Your task to perform on an android device: What's the weather going to be this weekend? Image 0: 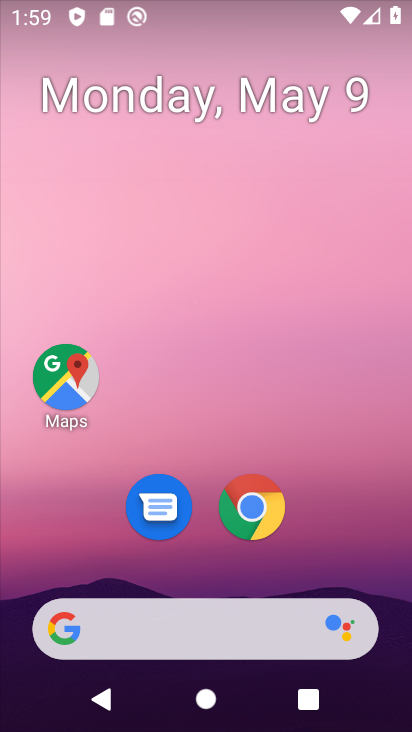
Step 0: click (214, 613)
Your task to perform on an android device: What's the weather going to be this weekend? Image 1: 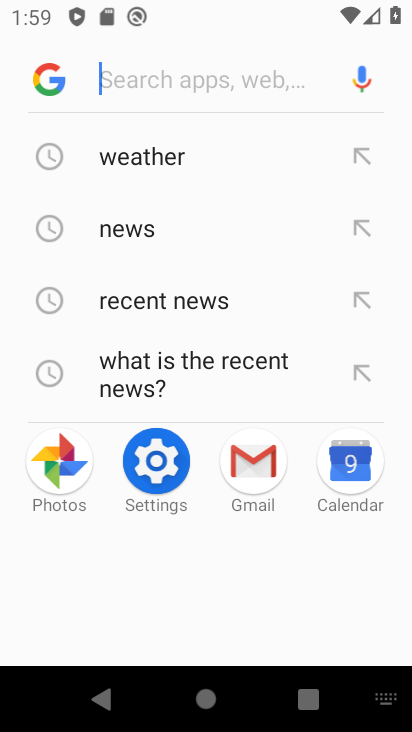
Step 1: type "What's the weather going to be this weekend?"
Your task to perform on an android device: What's the weather going to be this weekend? Image 2: 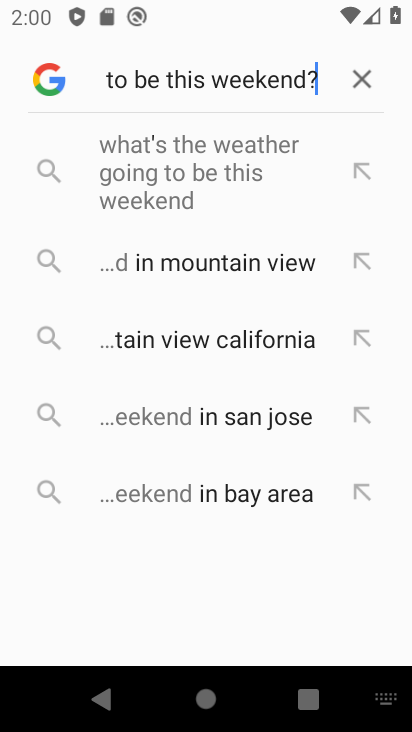
Step 2: click (103, 189)
Your task to perform on an android device: What's the weather going to be this weekend? Image 3: 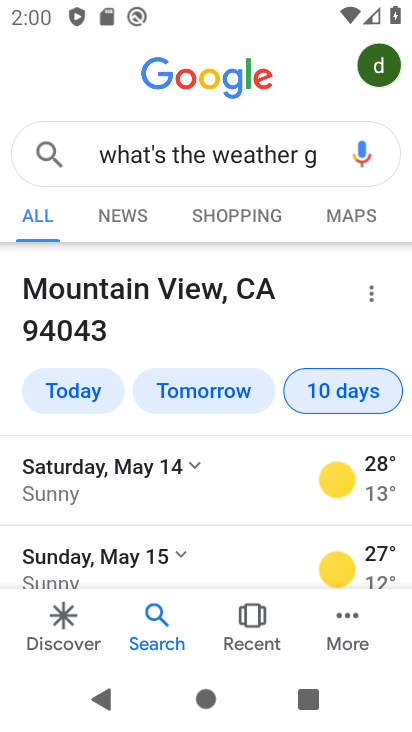
Step 3: task complete